Your task to perform on an android device: Open maps Image 0: 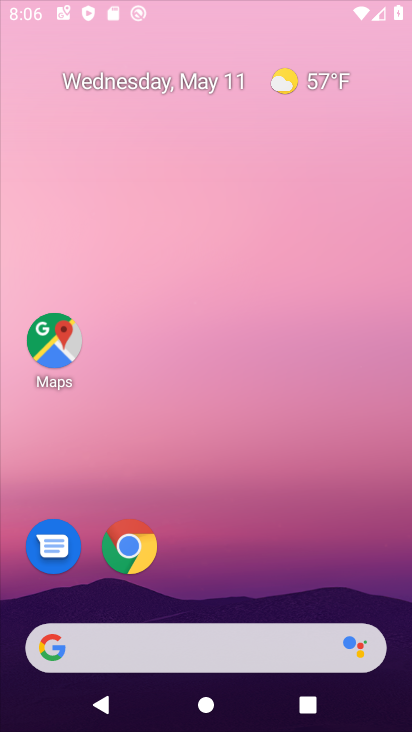
Step 0: drag from (219, 579) to (228, 279)
Your task to perform on an android device: Open maps Image 1: 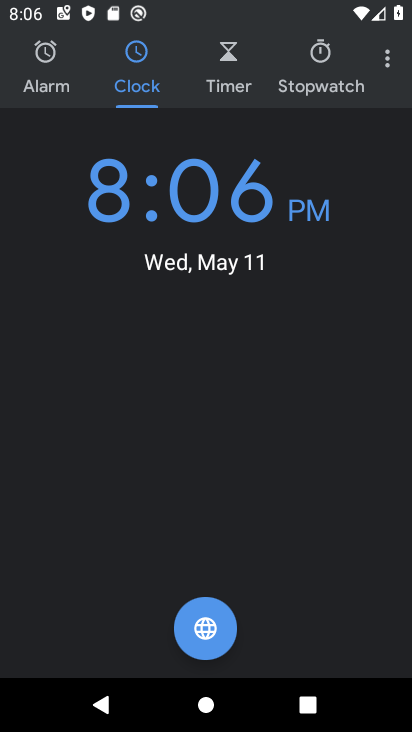
Step 1: press home button
Your task to perform on an android device: Open maps Image 2: 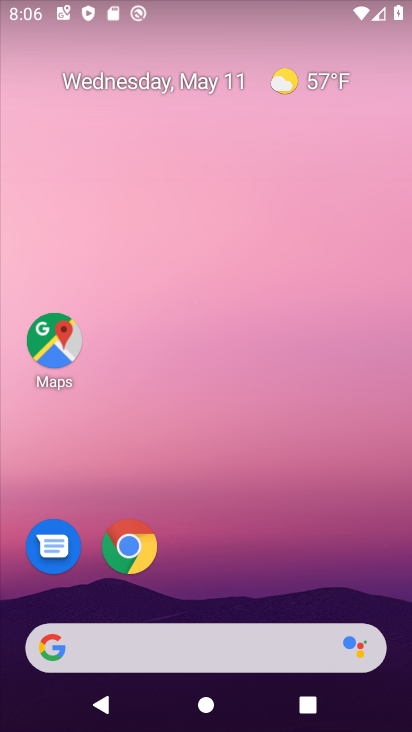
Step 2: click (80, 344)
Your task to perform on an android device: Open maps Image 3: 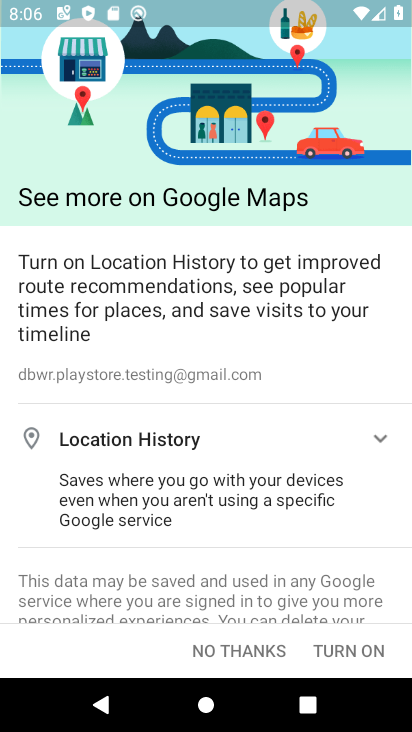
Step 3: click (331, 659)
Your task to perform on an android device: Open maps Image 4: 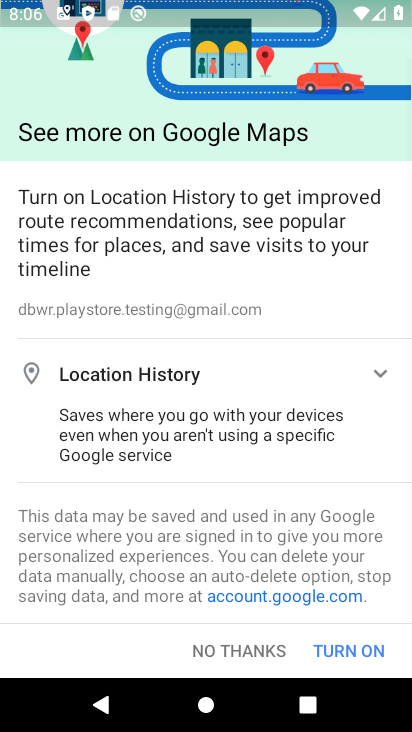
Step 4: click (331, 659)
Your task to perform on an android device: Open maps Image 5: 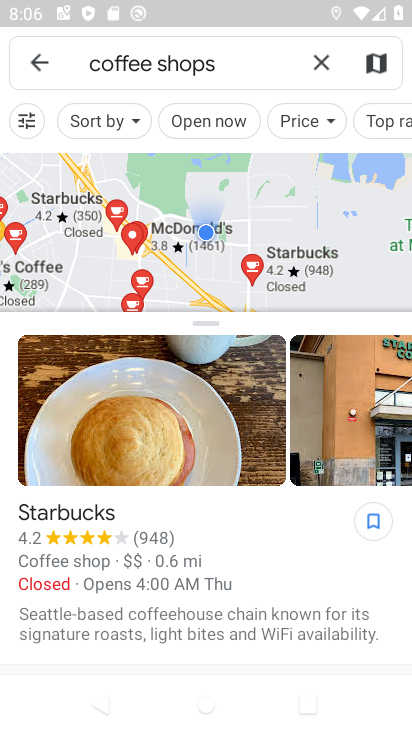
Step 5: task complete